Your task to perform on an android device: star an email in the gmail app Image 0: 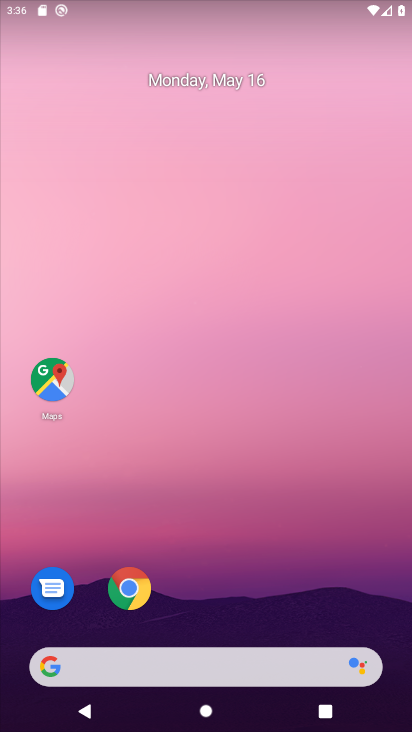
Step 0: drag from (234, 640) to (281, 284)
Your task to perform on an android device: star an email in the gmail app Image 1: 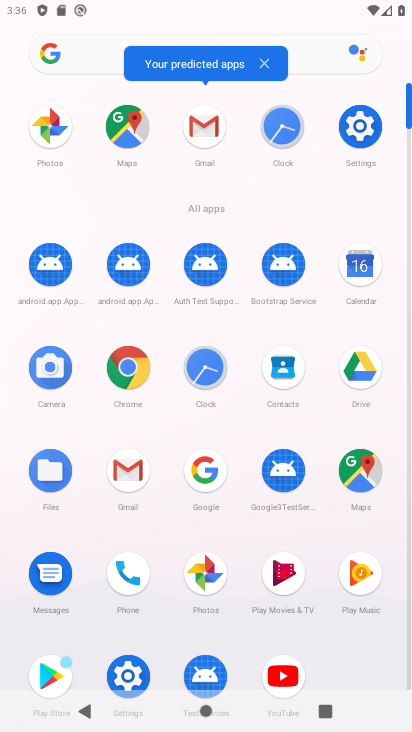
Step 1: click (138, 483)
Your task to perform on an android device: star an email in the gmail app Image 2: 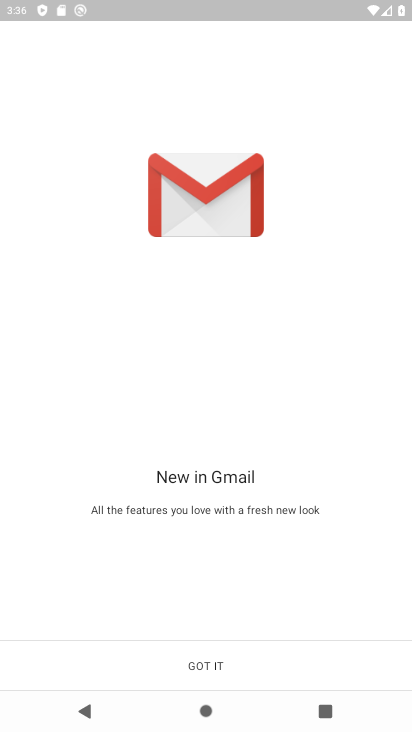
Step 2: click (268, 665)
Your task to perform on an android device: star an email in the gmail app Image 3: 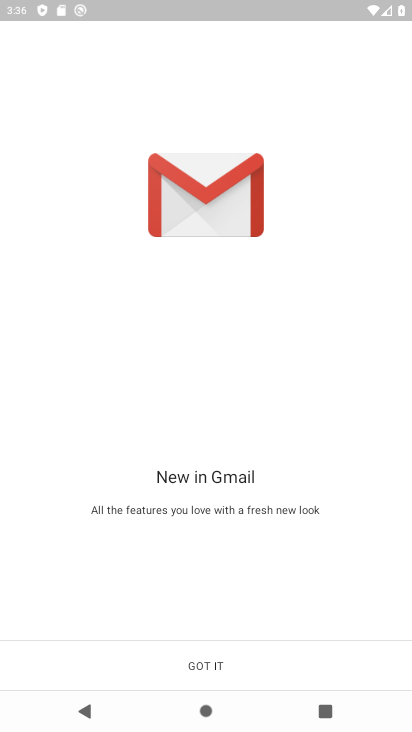
Step 3: click (265, 665)
Your task to perform on an android device: star an email in the gmail app Image 4: 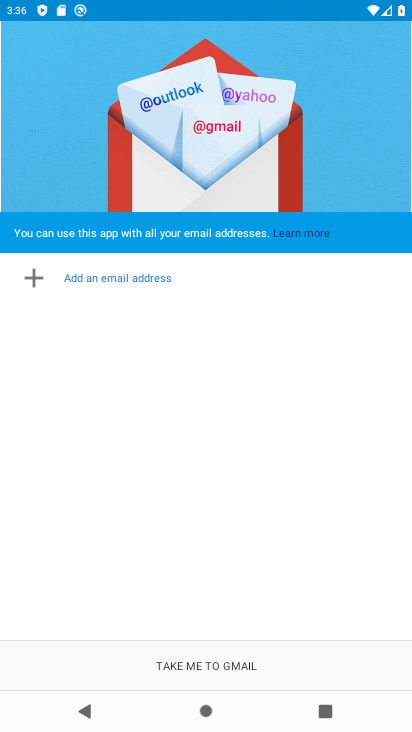
Step 4: click (265, 665)
Your task to perform on an android device: star an email in the gmail app Image 5: 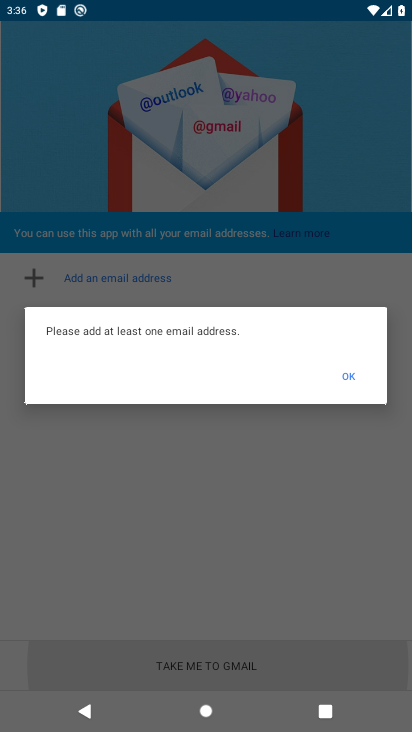
Step 5: click (353, 371)
Your task to perform on an android device: star an email in the gmail app Image 6: 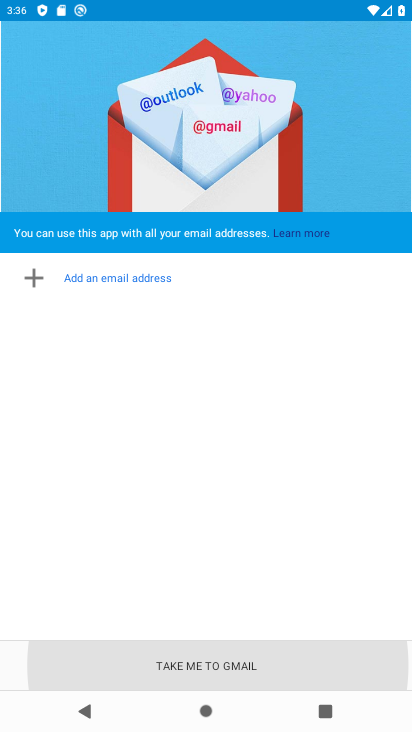
Step 6: click (215, 669)
Your task to perform on an android device: star an email in the gmail app Image 7: 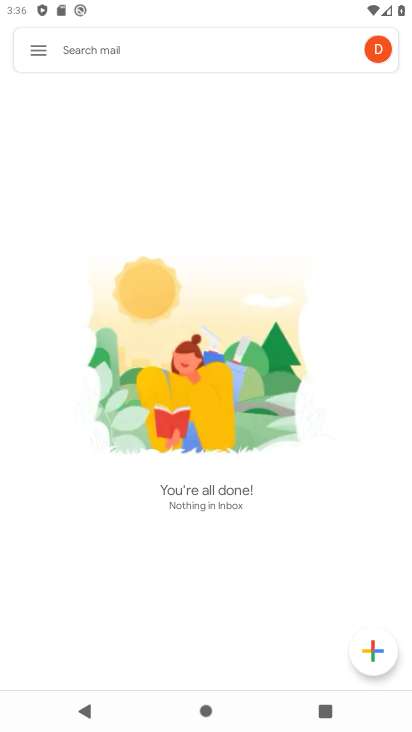
Step 7: task complete